Your task to perform on an android device: Go to ESPN.com Image 0: 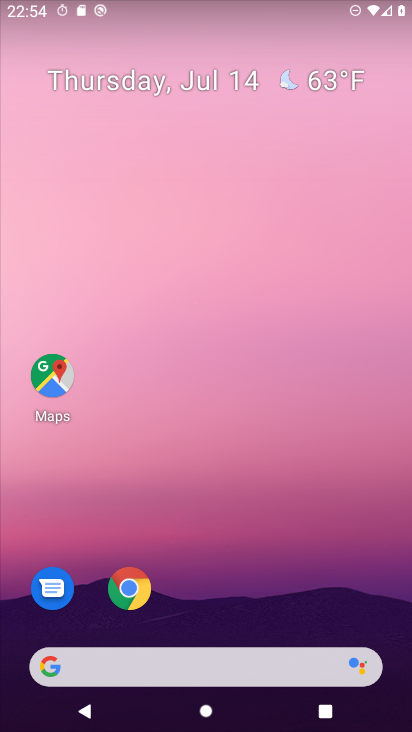
Step 0: drag from (347, 609) to (375, 98)
Your task to perform on an android device: Go to ESPN.com Image 1: 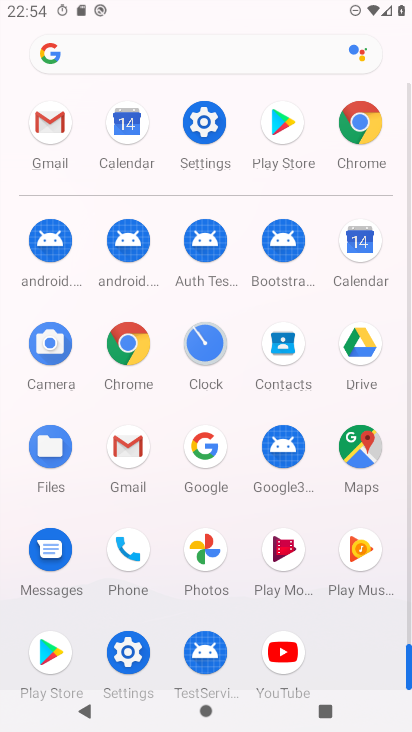
Step 1: click (360, 135)
Your task to perform on an android device: Go to ESPN.com Image 2: 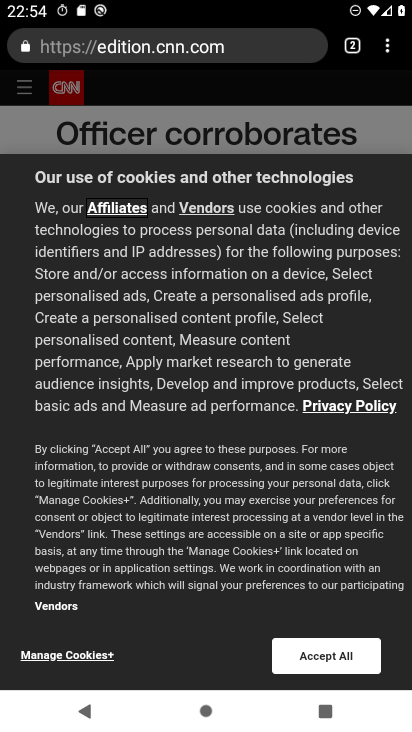
Step 2: click (238, 45)
Your task to perform on an android device: Go to ESPN.com Image 3: 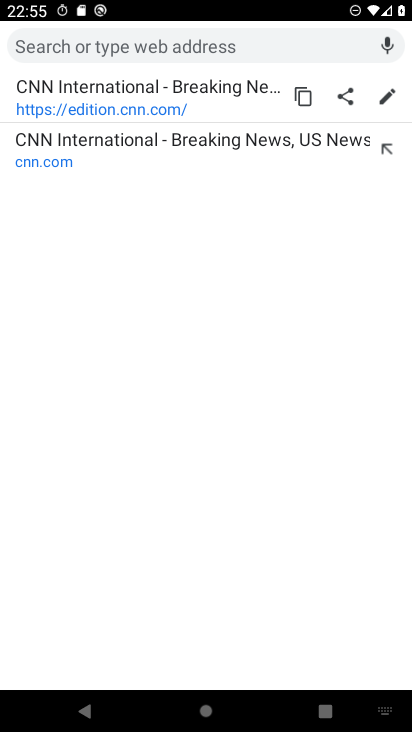
Step 3: type "espn.com"
Your task to perform on an android device: Go to ESPN.com Image 4: 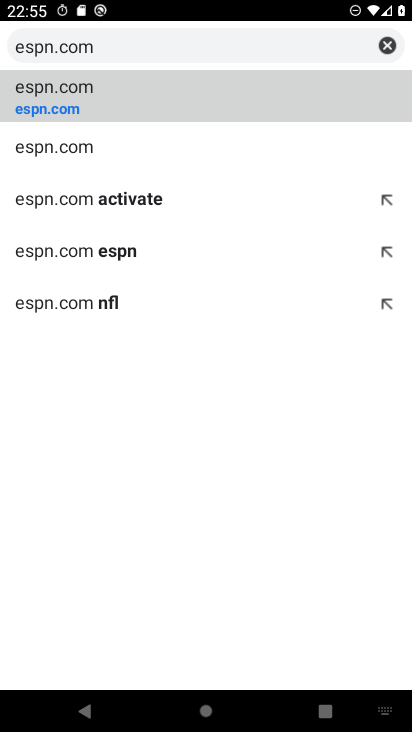
Step 4: click (265, 102)
Your task to perform on an android device: Go to ESPN.com Image 5: 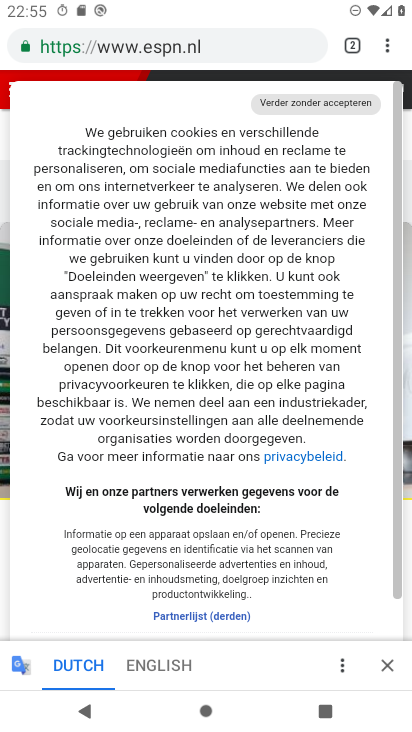
Step 5: task complete